Your task to perform on an android device: visit the assistant section in the google photos Image 0: 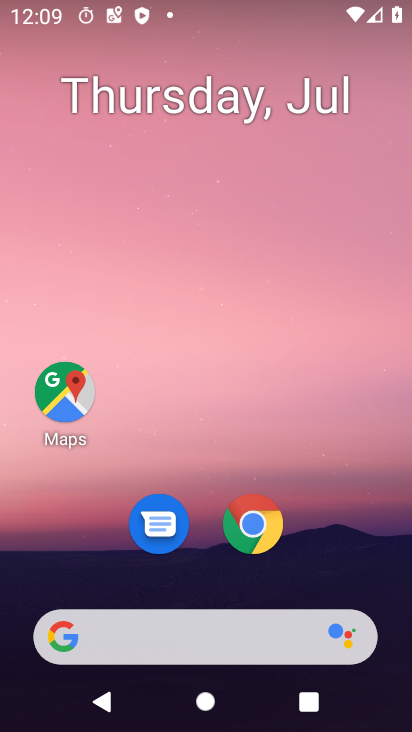
Step 0: drag from (203, 619) to (308, 279)
Your task to perform on an android device: visit the assistant section in the google photos Image 1: 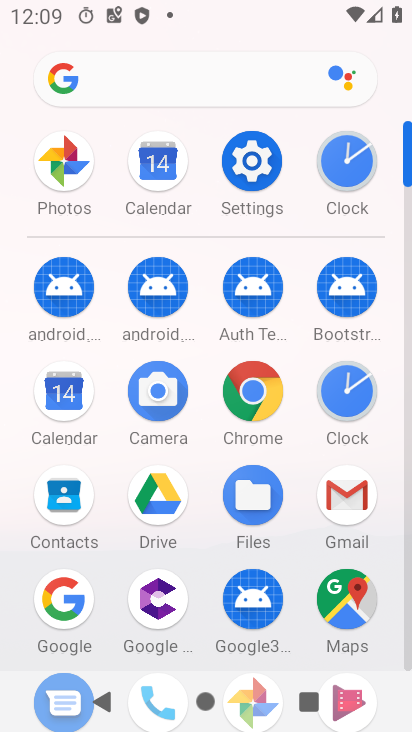
Step 1: click (67, 166)
Your task to perform on an android device: visit the assistant section in the google photos Image 2: 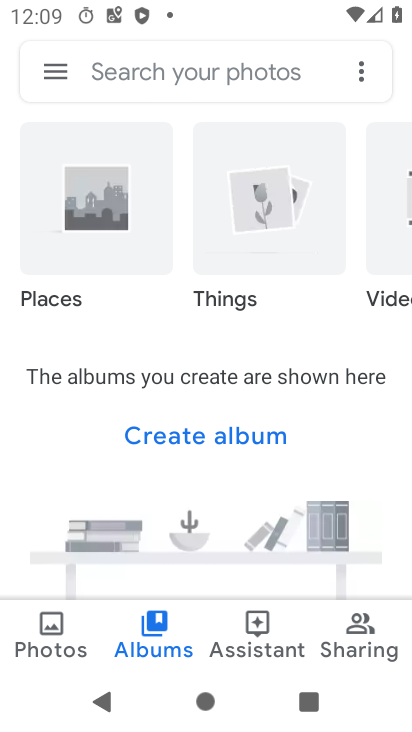
Step 2: click (249, 643)
Your task to perform on an android device: visit the assistant section in the google photos Image 3: 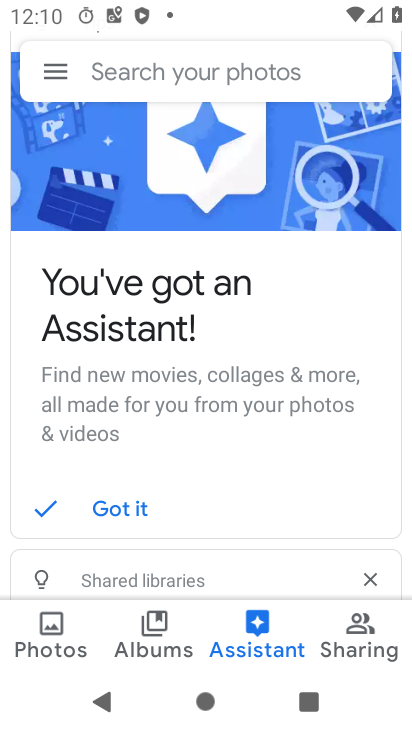
Step 3: task complete